Your task to perform on an android device: Open the web browser Image 0: 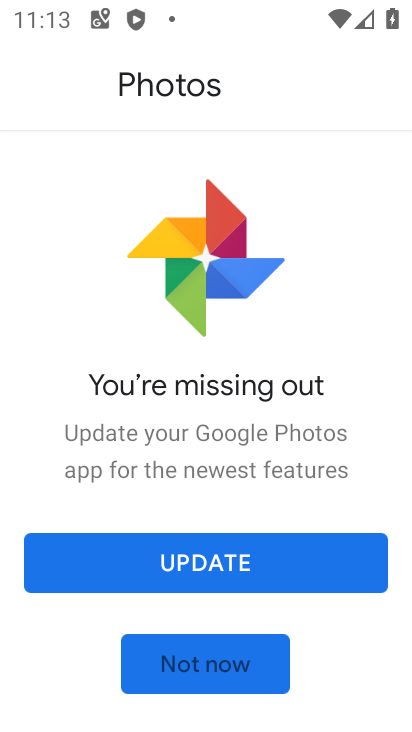
Step 0: press home button
Your task to perform on an android device: Open the web browser Image 1: 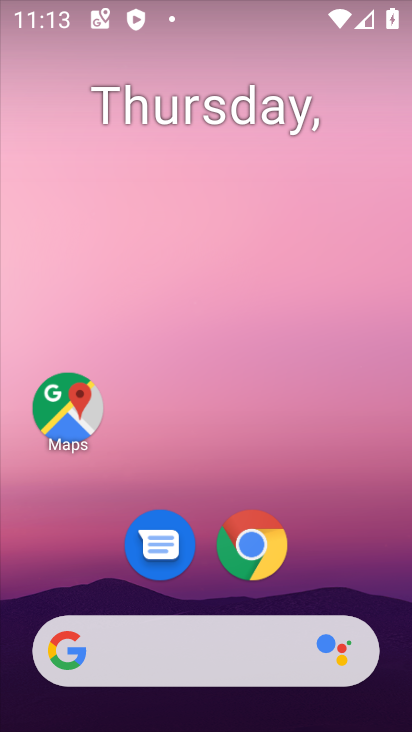
Step 1: drag from (298, 587) to (237, 118)
Your task to perform on an android device: Open the web browser Image 2: 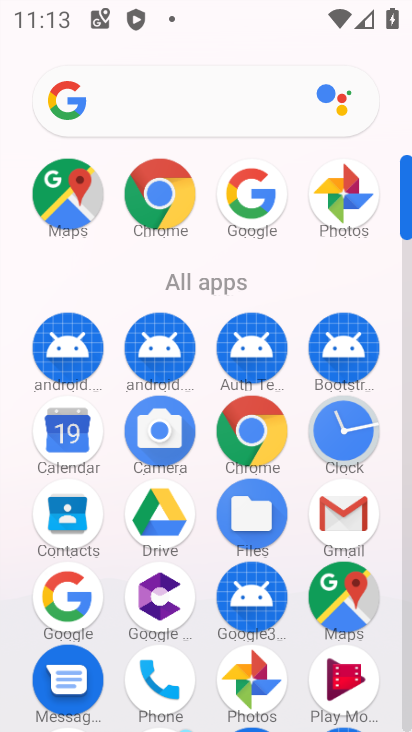
Step 2: click (143, 222)
Your task to perform on an android device: Open the web browser Image 3: 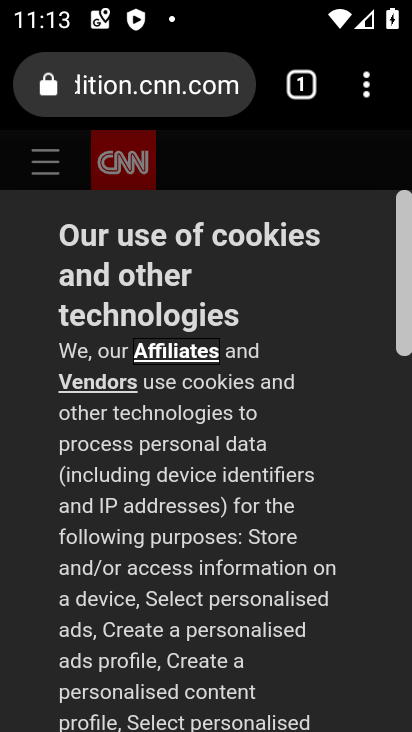
Step 3: task complete